Your task to perform on an android device: Go to Amazon Image 0: 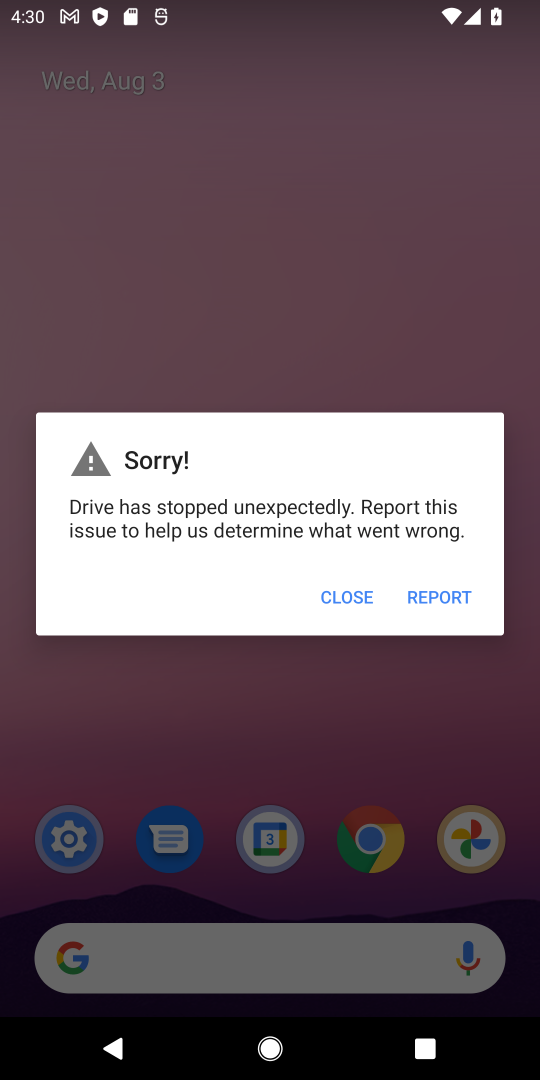
Step 0: click (362, 614)
Your task to perform on an android device: Go to Amazon Image 1: 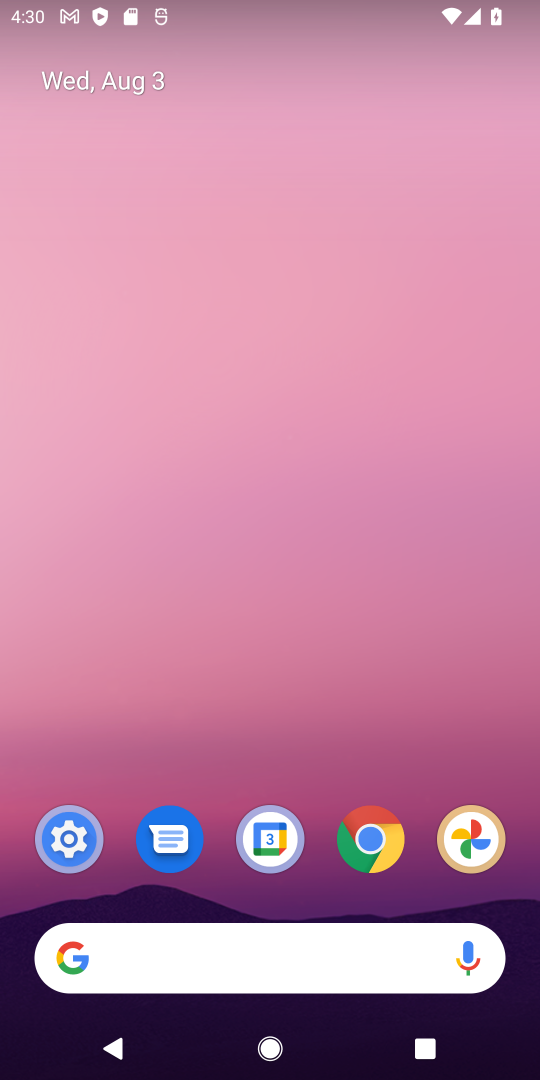
Step 1: drag from (197, 750) to (358, 41)
Your task to perform on an android device: Go to Amazon Image 2: 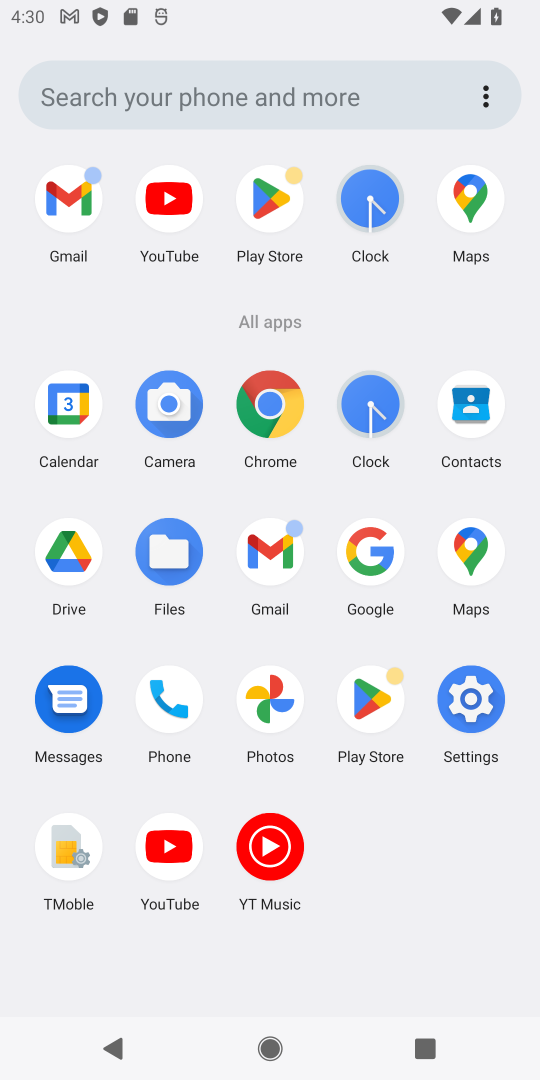
Step 2: click (365, 418)
Your task to perform on an android device: Go to Amazon Image 3: 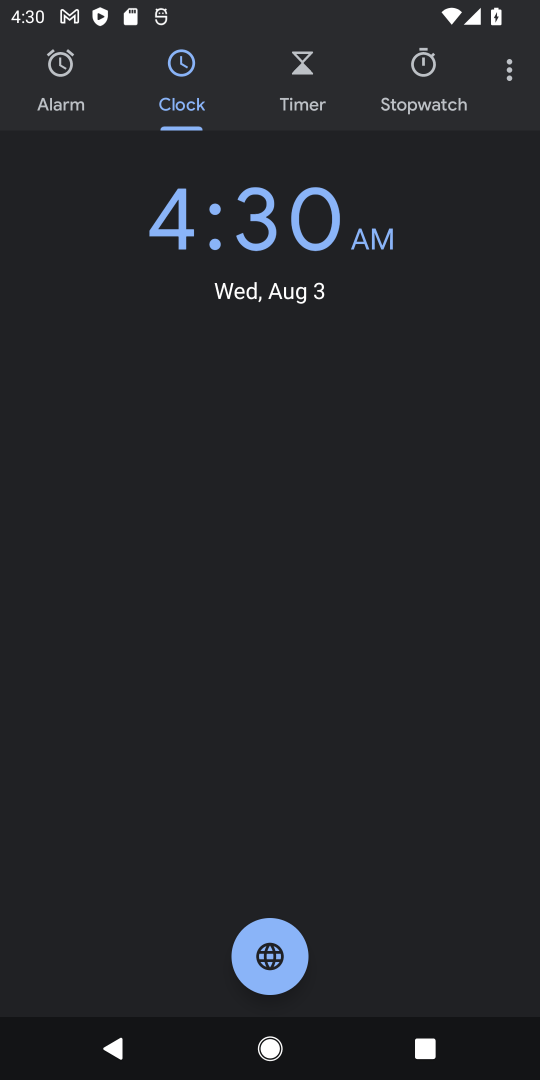
Step 3: press back button
Your task to perform on an android device: Go to Amazon Image 4: 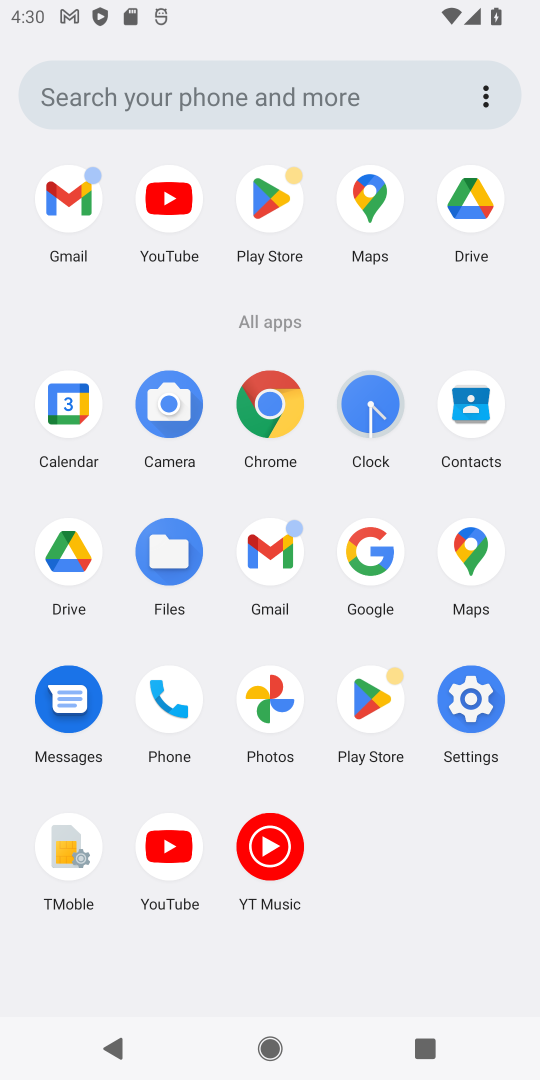
Step 4: click (261, 405)
Your task to perform on an android device: Go to Amazon Image 5: 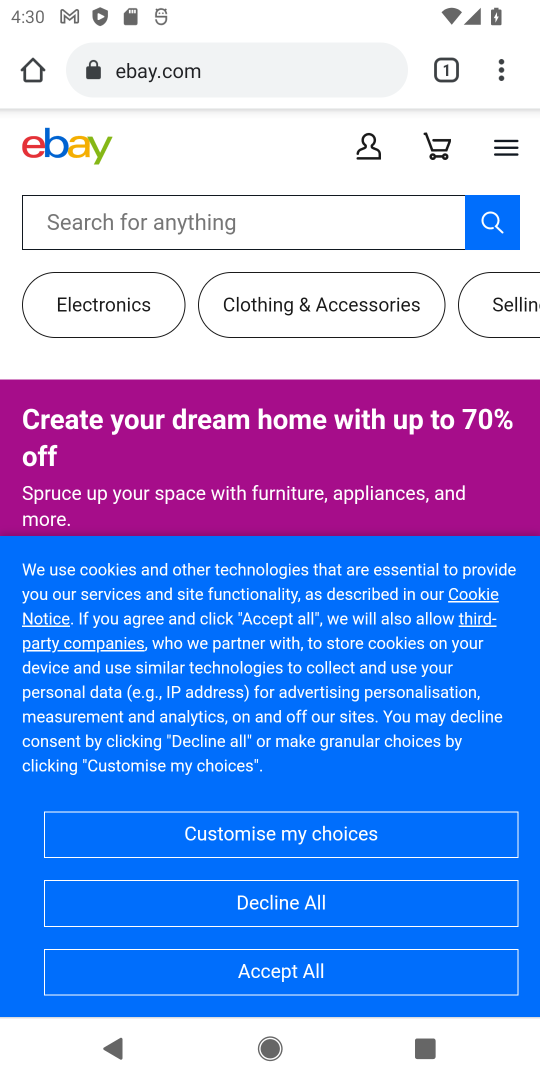
Step 5: click (441, 90)
Your task to perform on an android device: Go to Amazon Image 6: 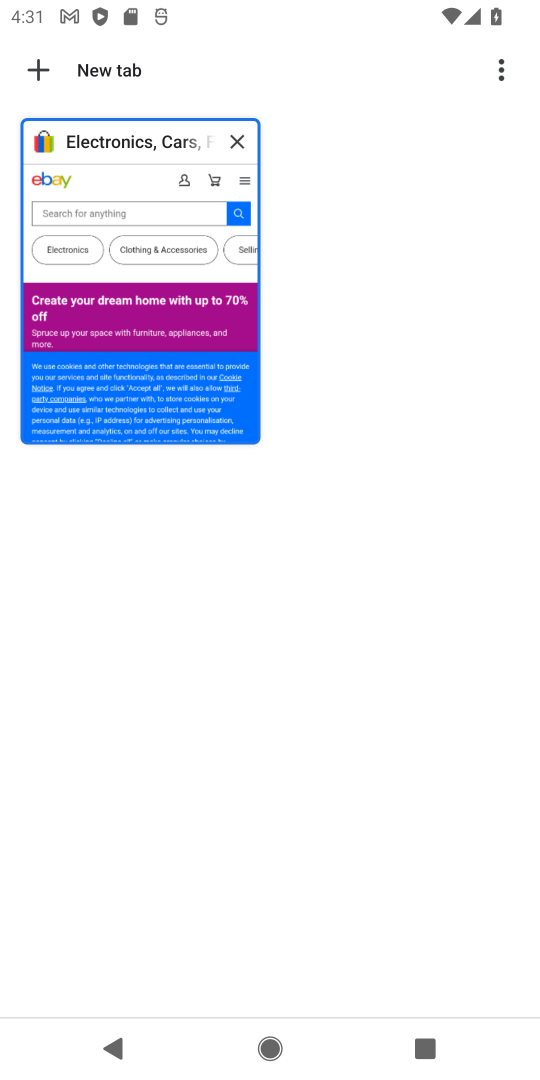
Step 6: click (41, 62)
Your task to perform on an android device: Go to Amazon Image 7: 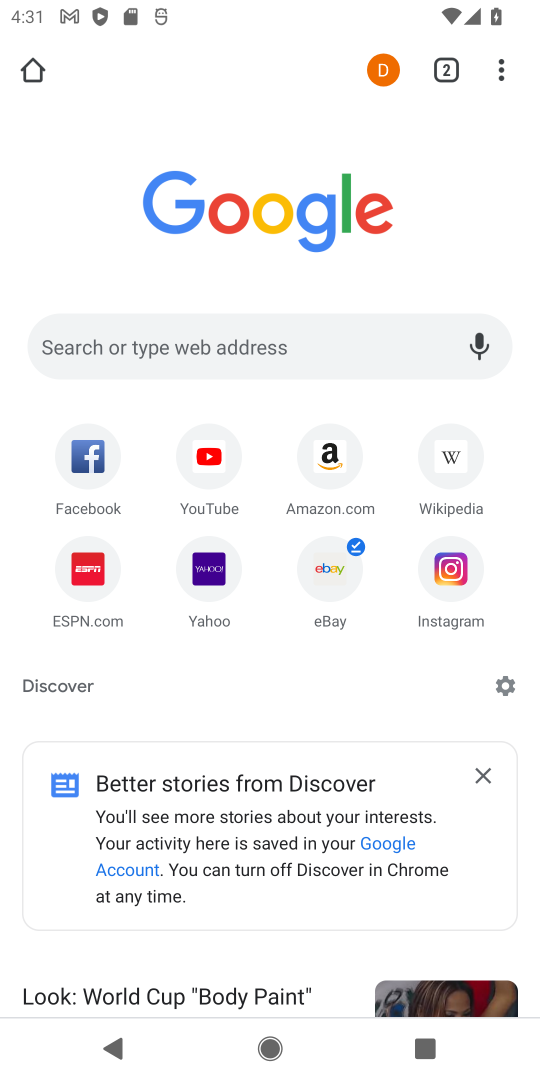
Step 7: click (336, 458)
Your task to perform on an android device: Go to Amazon Image 8: 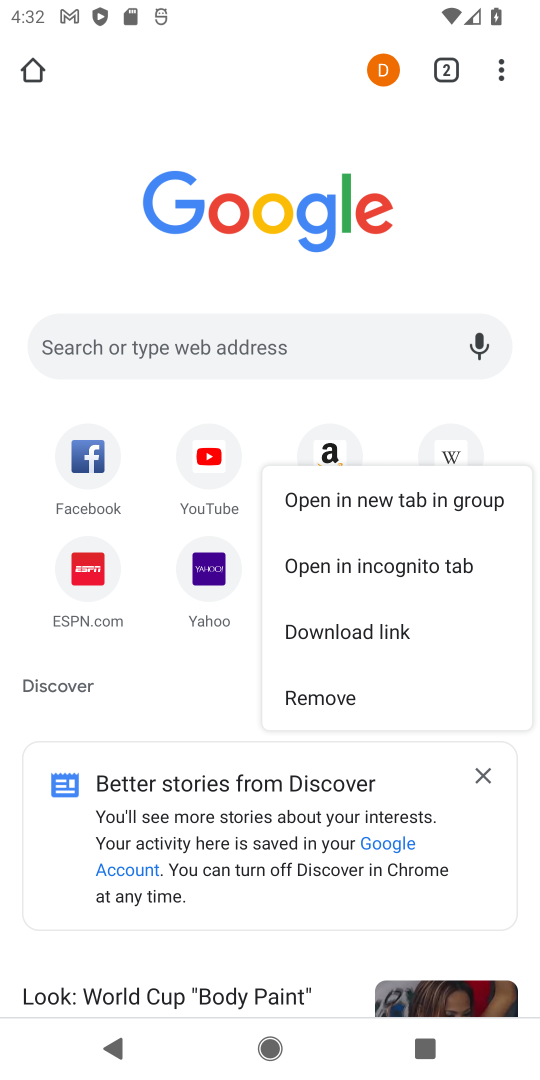
Step 8: click (387, 250)
Your task to perform on an android device: Go to Amazon Image 9: 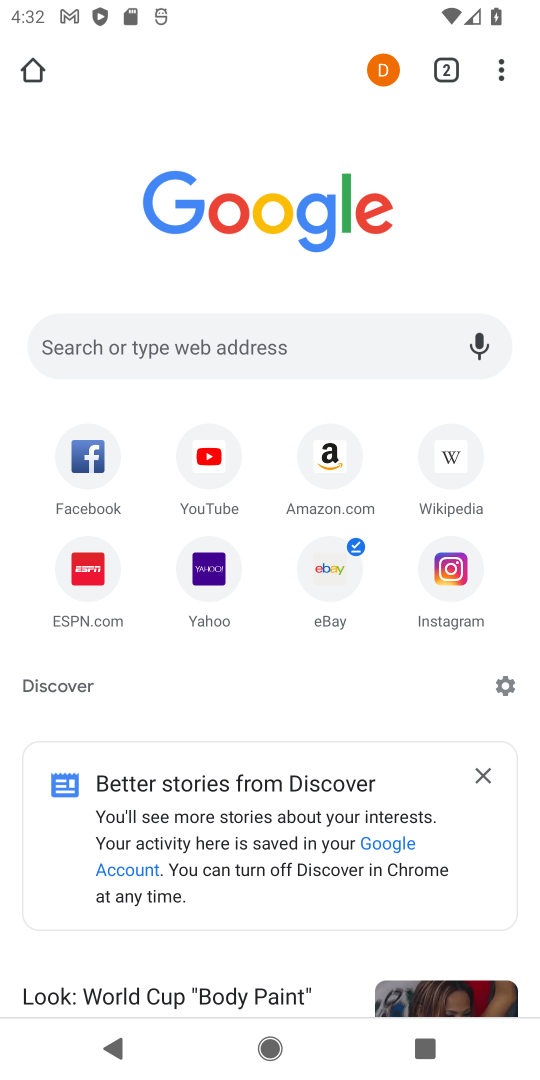
Step 9: click (339, 449)
Your task to perform on an android device: Go to Amazon Image 10: 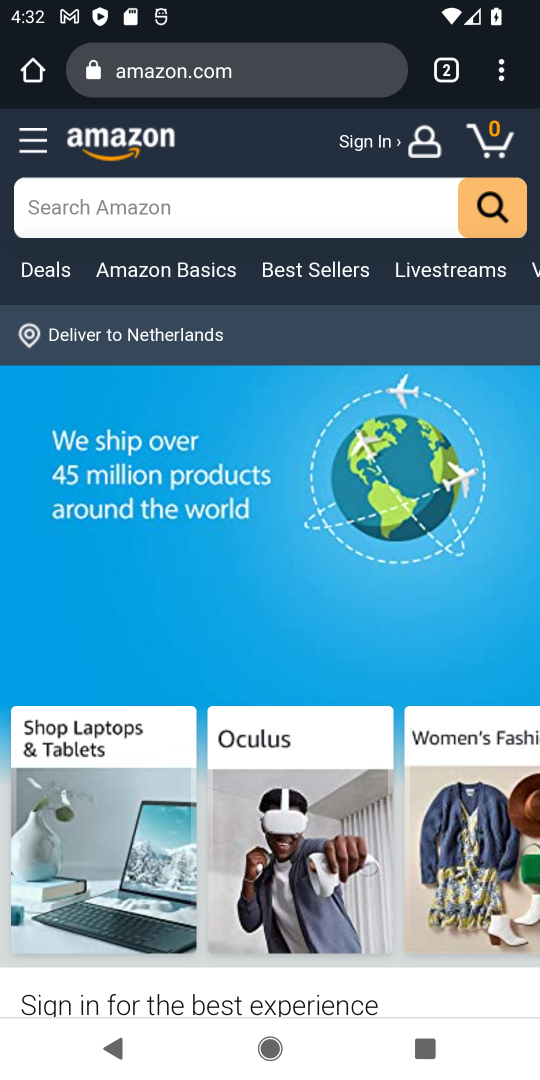
Step 10: task complete